Your task to perform on an android device: Turn off the flashlight Image 0: 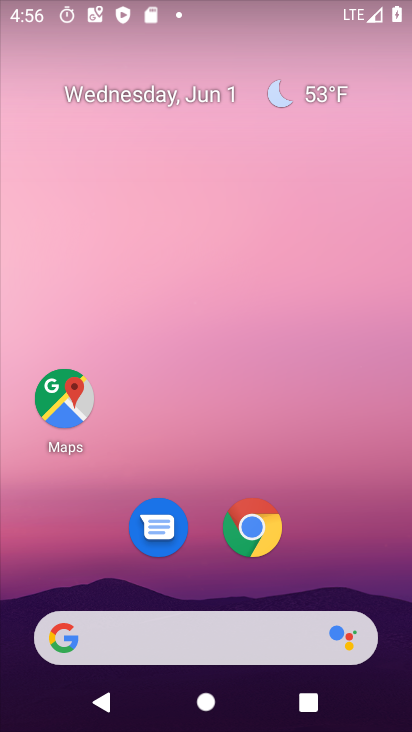
Step 0: drag from (264, 6) to (250, 416)
Your task to perform on an android device: Turn off the flashlight Image 1: 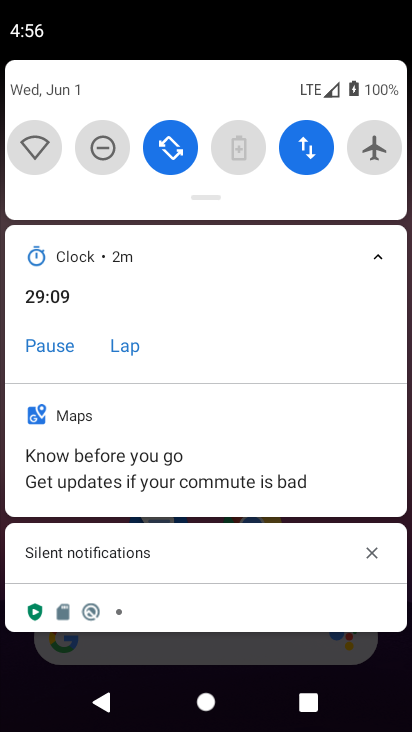
Step 1: task complete